Your task to perform on an android device: Go to Google maps Image 0: 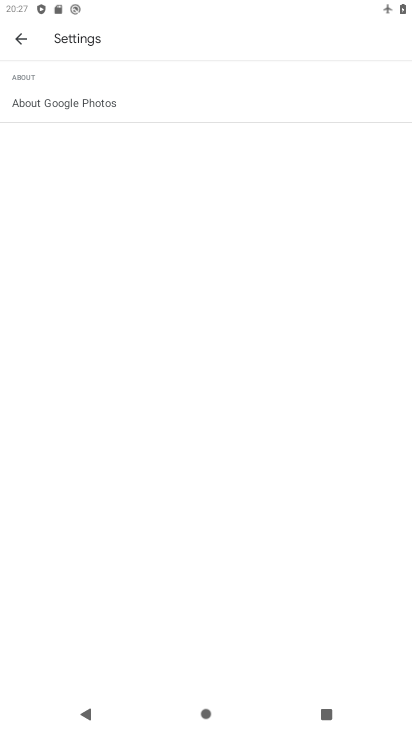
Step 0: press home button
Your task to perform on an android device: Go to Google maps Image 1: 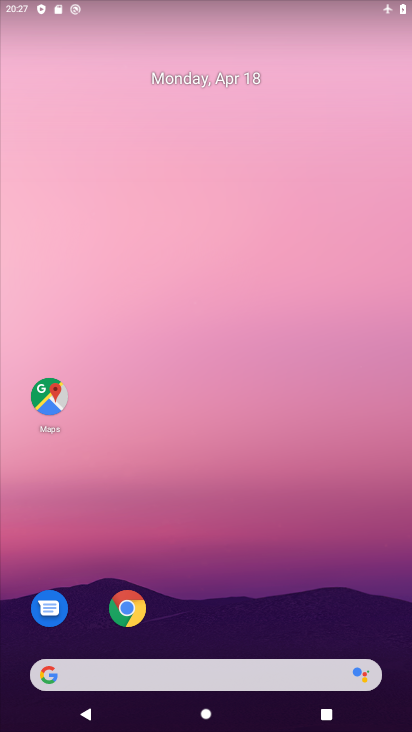
Step 1: click (56, 395)
Your task to perform on an android device: Go to Google maps Image 2: 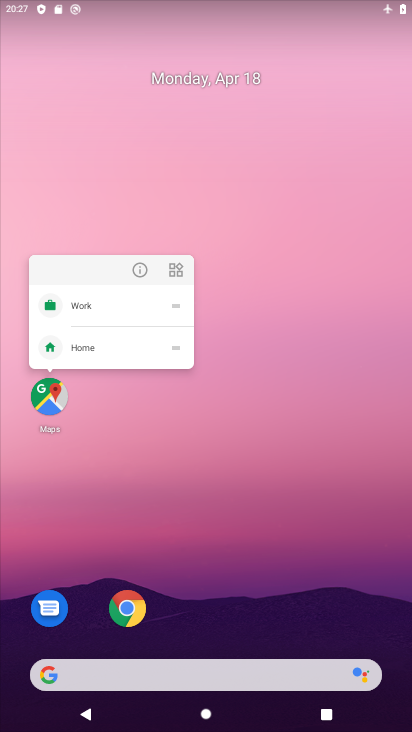
Step 2: click (121, 459)
Your task to perform on an android device: Go to Google maps Image 3: 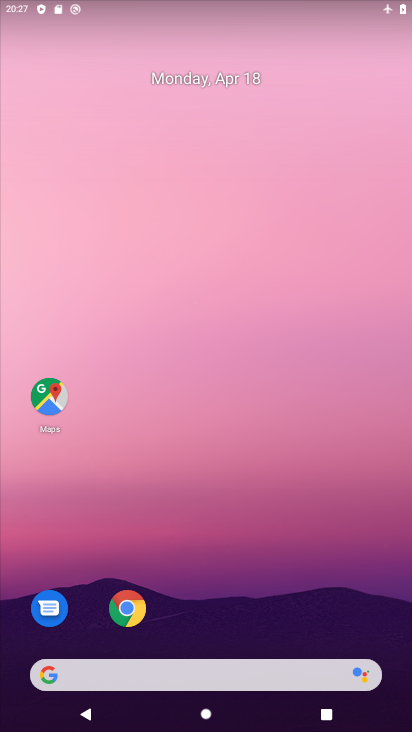
Step 3: click (48, 398)
Your task to perform on an android device: Go to Google maps Image 4: 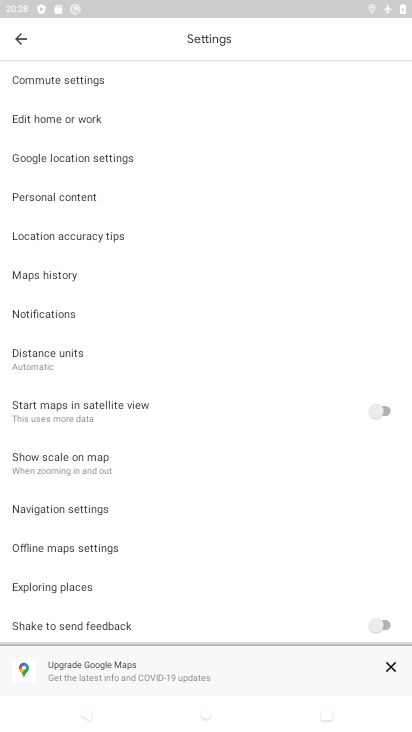
Step 4: task complete